Your task to perform on an android device: What's the weather? Image 0: 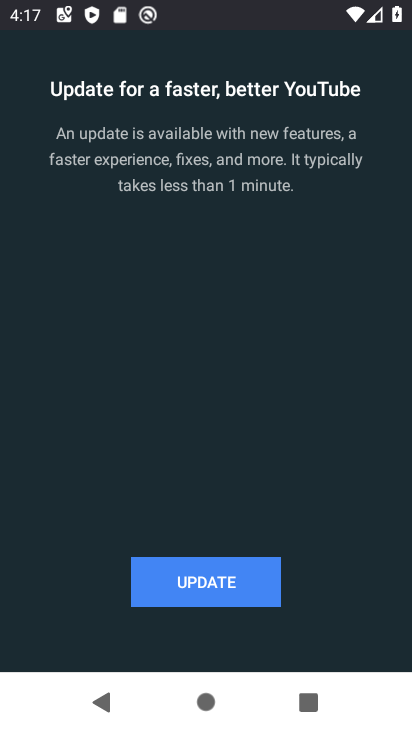
Step 0: press home button
Your task to perform on an android device: What's the weather? Image 1: 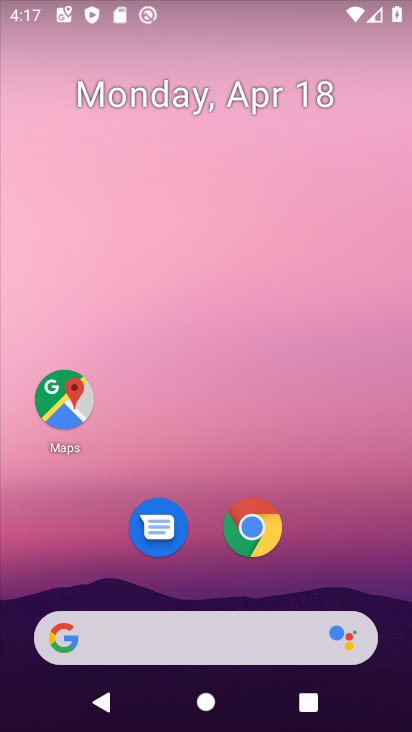
Step 1: drag from (29, 217) to (410, 220)
Your task to perform on an android device: What's the weather? Image 2: 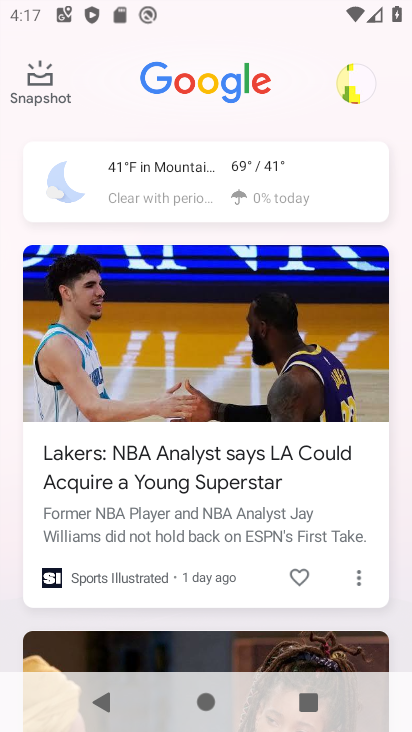
Step 2: click (217, 168)
Your task to perform on an android device: What's the weather? Image 3: 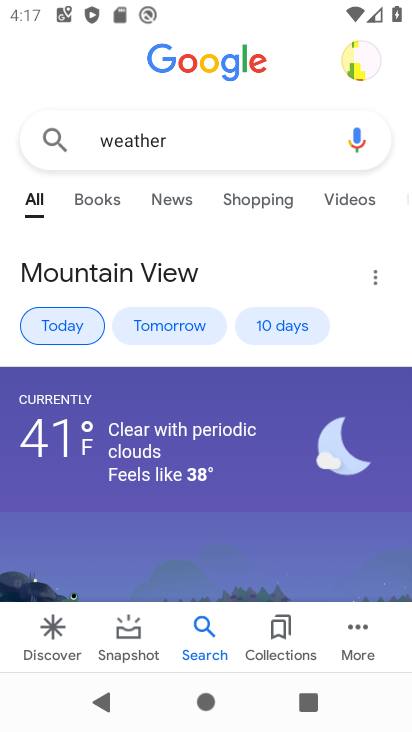
Step 3: task complete